Your task to perform on an android device: Open calendar and show me the second week of next month Image 0: 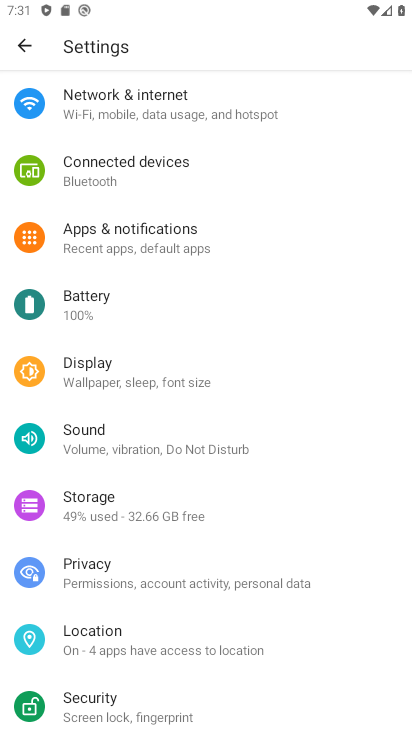
Step 0: press home button
Your task to perform on an android device: Open calendar and show me the second week of next month Image 1: 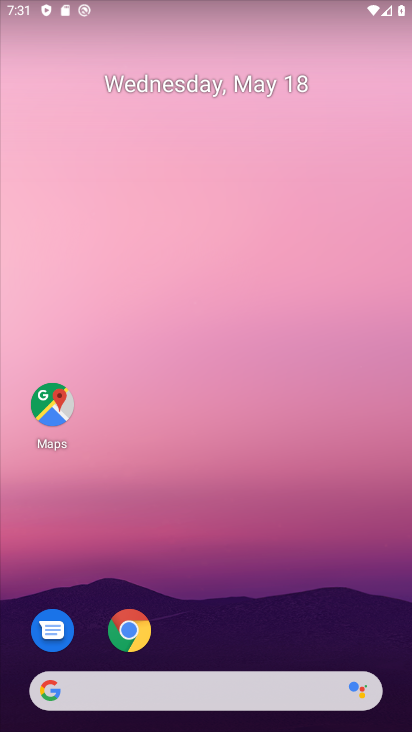
Step 1: drag from (270, 599) to (230, 98)
Your task to perform on an android device: Open calendar and show me the second week of next month Image 2: 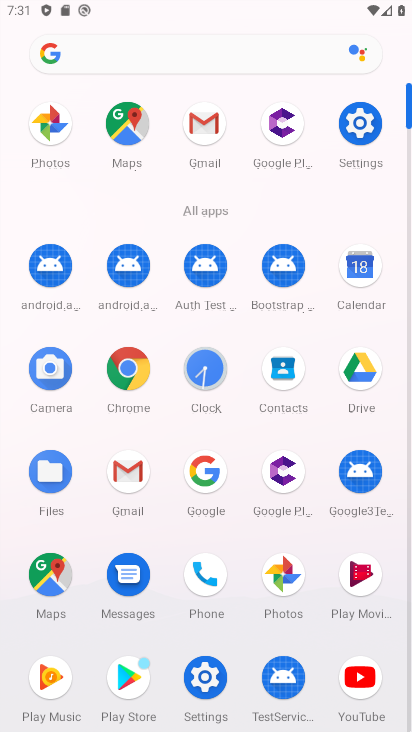
Step 2: click (373, 262)
Your task to perform on an android device: Open calendar and show me the second week of next month Image 3: 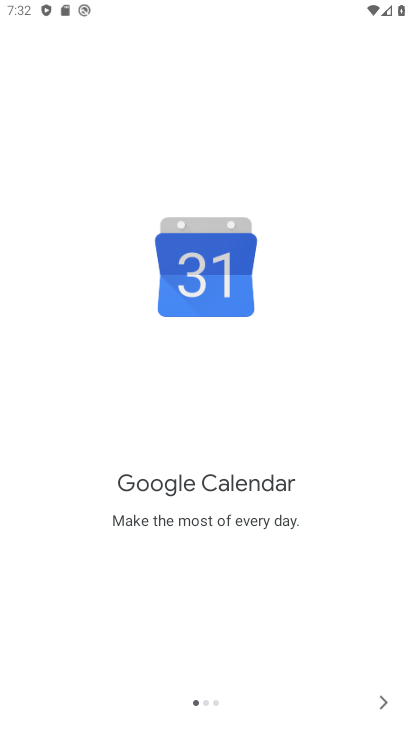
Step 3: click (377, 695)
Your task to perform on an android device: Open calendar and show me the second week of next month Image 4: 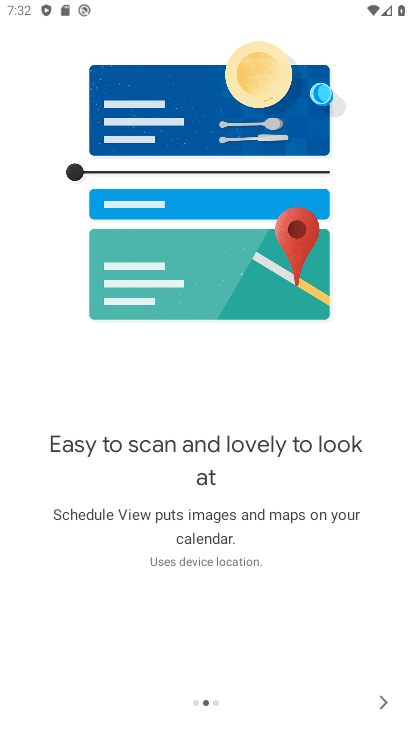
Step 4: click (377, 695)
Your task to perform on an android device: Open calendar and show me the second week of next month Image 5: 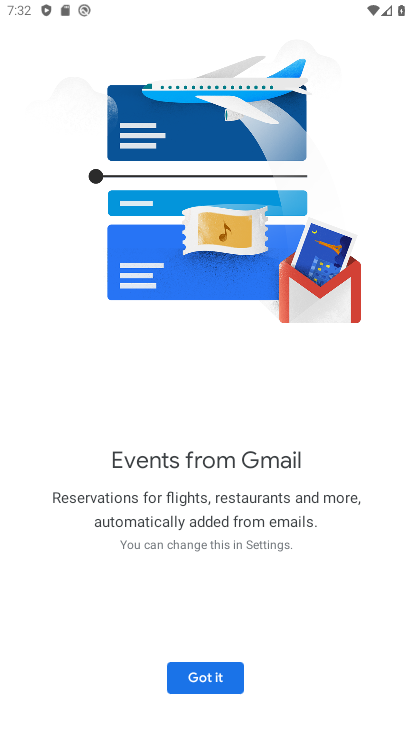
Step 5: click (188, 676)
Your task to perform on an android device: Open calendar and show me the second week of next month Image 6: 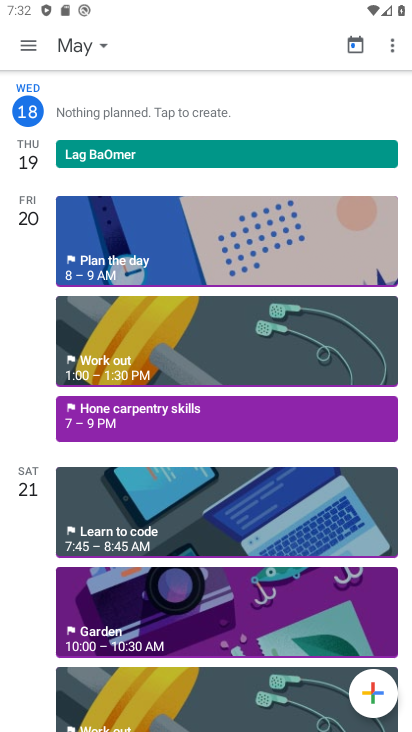
Step 6: click (85, 45)
Your task to perform on an android device: Open calendar and show me the second week of next month Image 7: 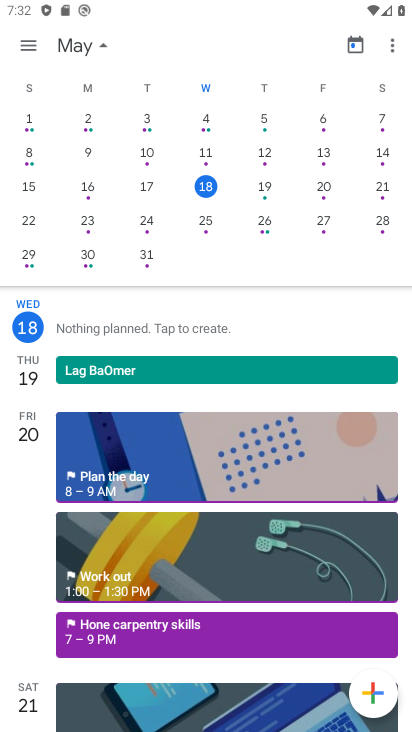
Step 7: drag from (353, 217) to (0, 192)
Your task to perform on an android device: Open calendar and show me the second week of next month Image 8: 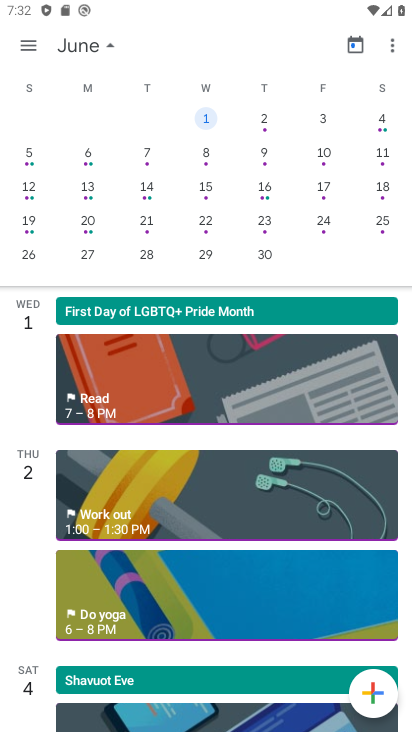
Step 8: click (146, 186)
Your task to perform on an android device: Open calendar and show me the second week of next month Image 9: 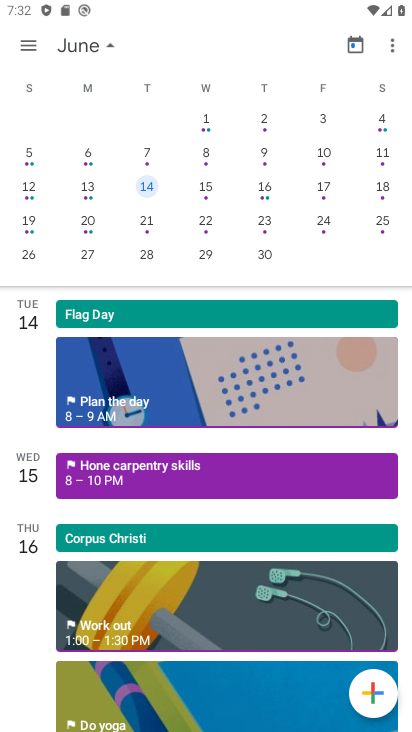
Step 9: task complete